Your task to perform on an android device: Show me popular games on the Play Store Image 0: 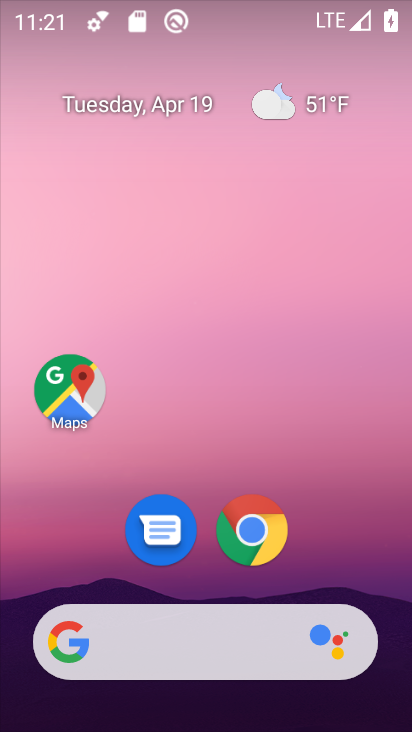
Step 0: press home button
Your task to perform on an android device: Show me popular games on the Play Store Image 1: 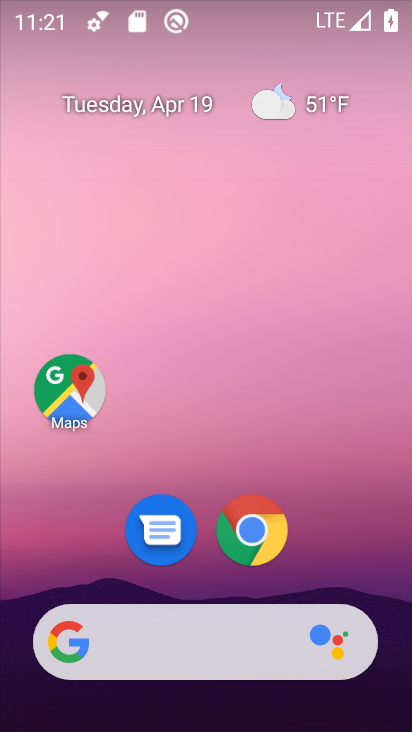
Step 1: drag from (154, 652) to (219, 158)
Your task to perform on an android device: Show me popular games on the Play Store Image 2: 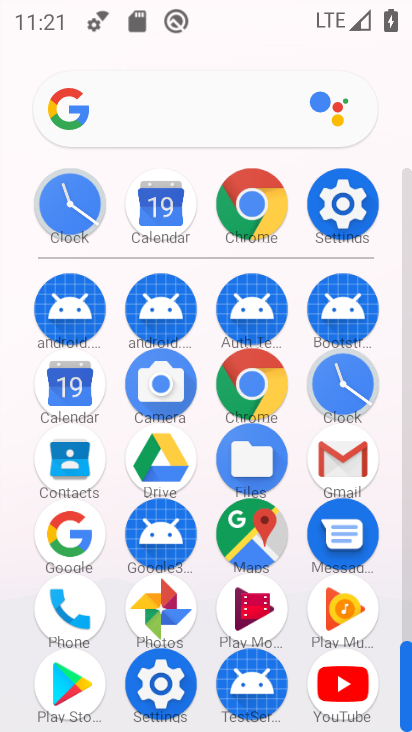
Step 2: click (67, 670)
Your task to perform on an android device: Show me popular games on the Play Store Image 3: 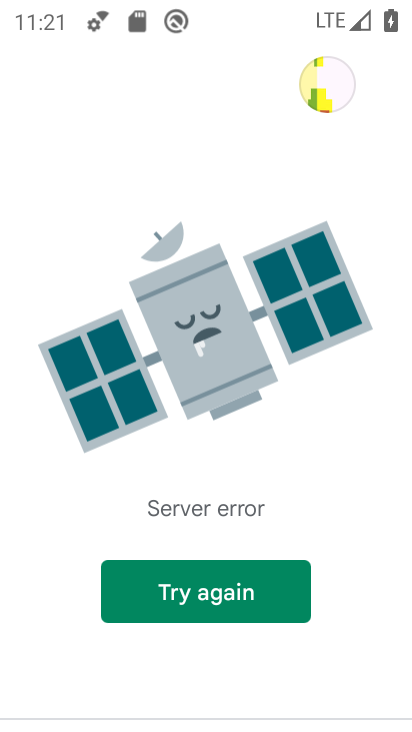
Step 3: click (202, 601)
Your task to perform on an android device: Show me popular games on the Play Store Image 4: 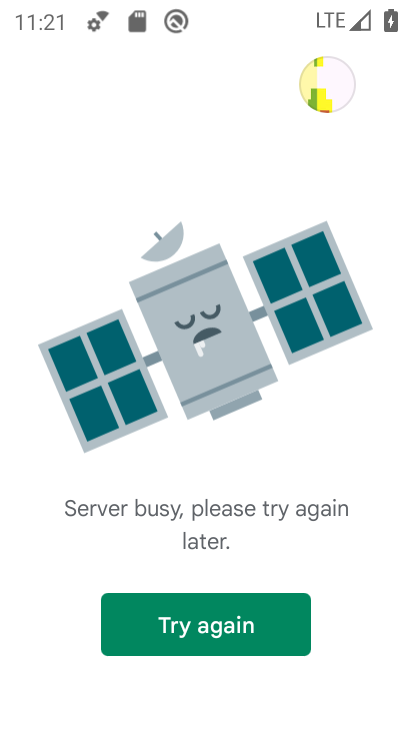
Step 4: task complete